Your task to perform on an android device: open app "ZOOM Cloud Meetings" Image 0: 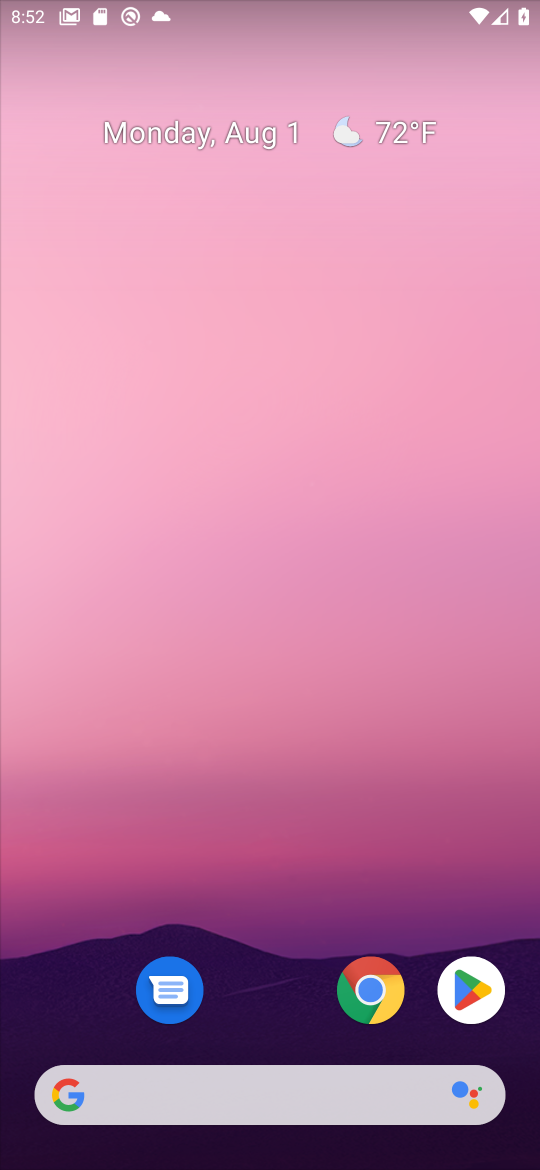
Step 0: click (470, 971)
Your task to perform on an android device: open app "ZOOM Cloud Meetings" Image 1: 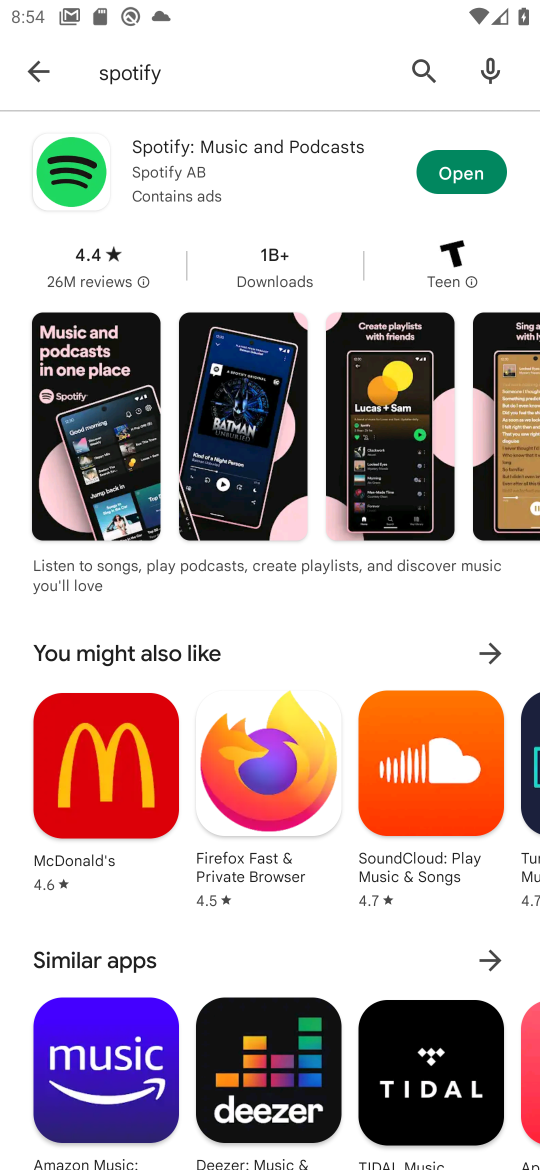
Step 1: click (420, 65)
Your task to perform on an android device: open app "ZOOM Cloud Meetings" Image 2: 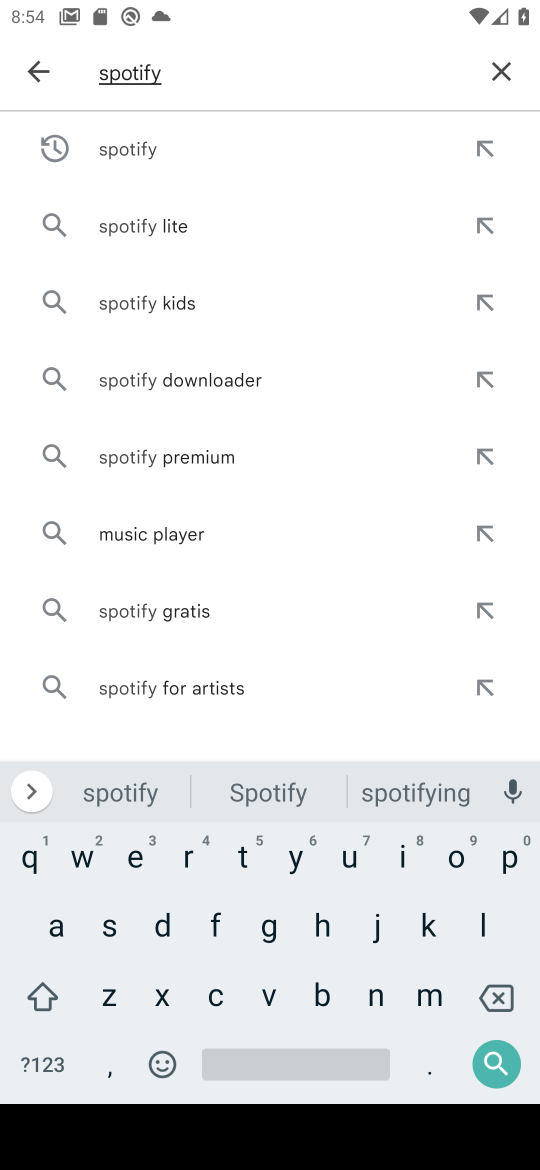
Step 2: click (496, 68)
Your task to perform on an android device: open app "ZOOM Cloud Meetings" Image 3: 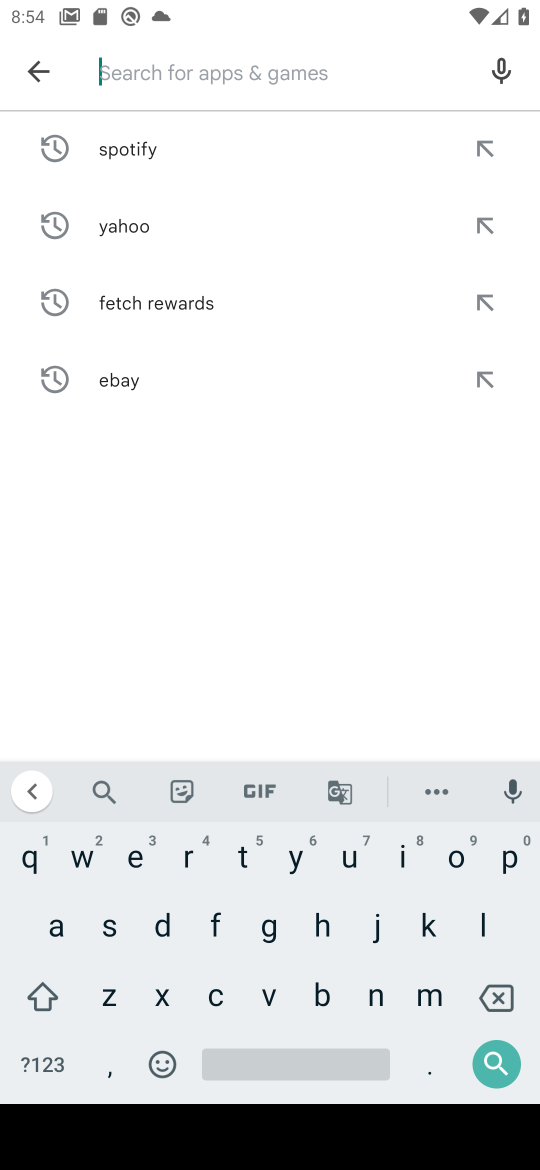
Step 3: click (107, 999)
Your task to perform on an android device: open app "ZOOM Cloud Meetings" Image 4: 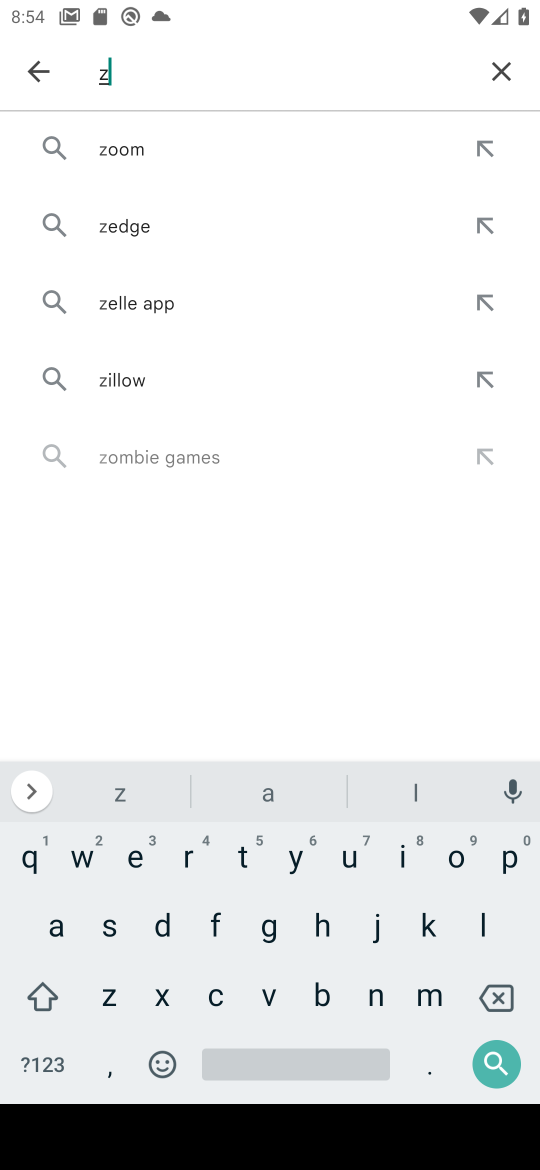
Step 4: click (450, 869)
Your task to perform on an android device: open app "ZOOM Cloud Meetings" Image 5: 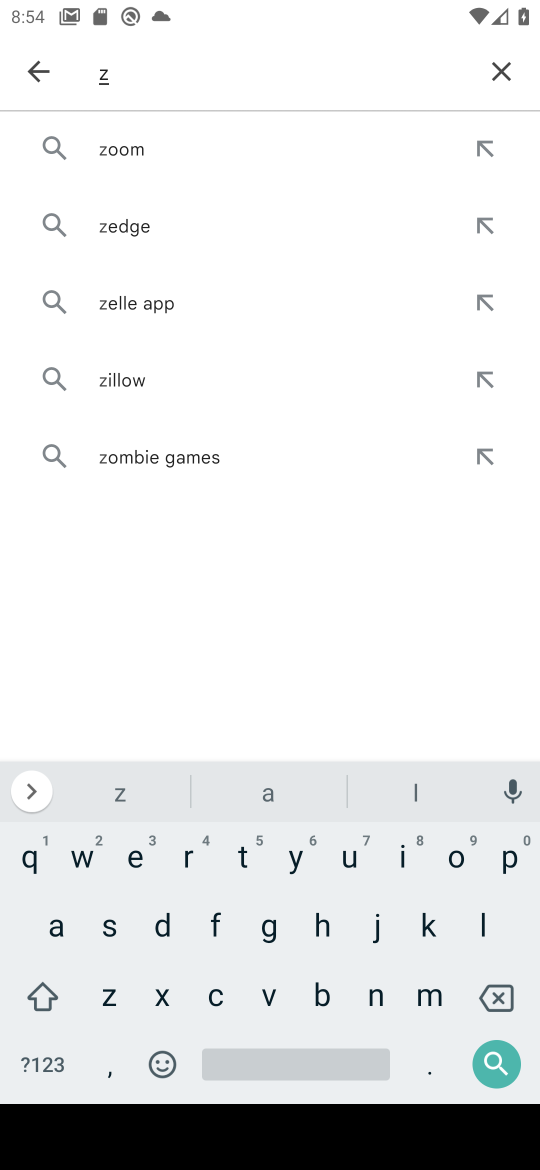
Step 5: click (450, 869)
Your task to perform on an android device: open app "ZOOM Cloud Meetings" Image 6: 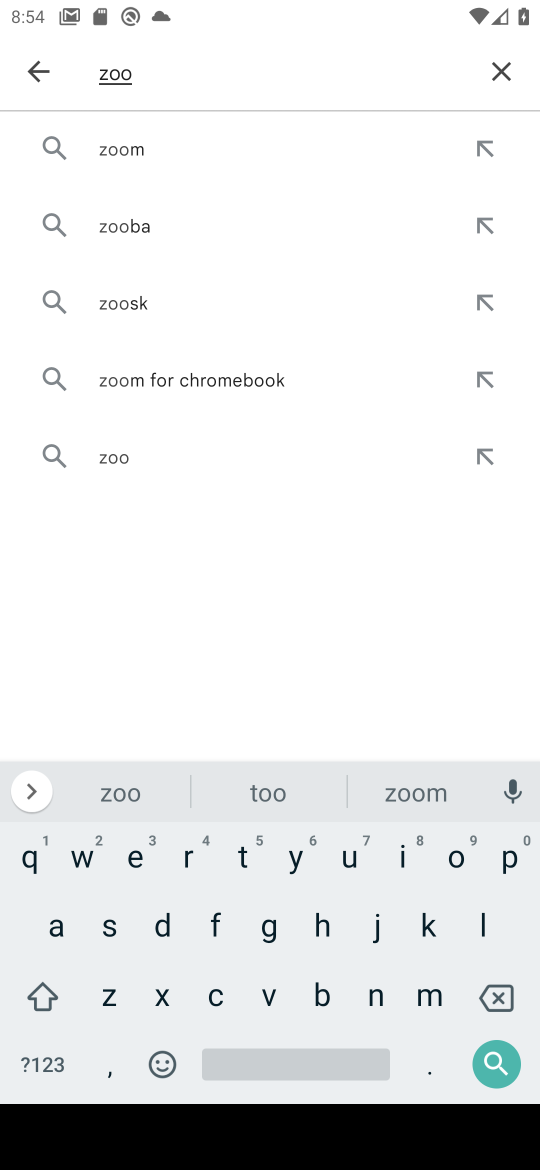
Step 6: click (171, 155)
Your task to perform on an android device: open app "ZOOM Cloud Meetings" Image 7: 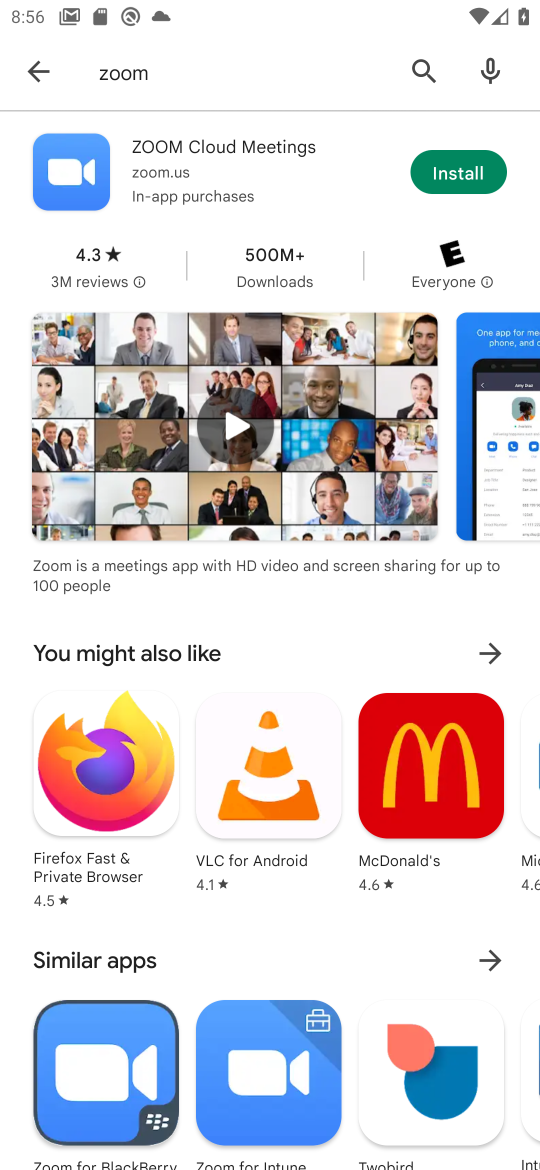
Step 7: task complete